Your task to perform on an android device: Open Wikipedia Image 0: 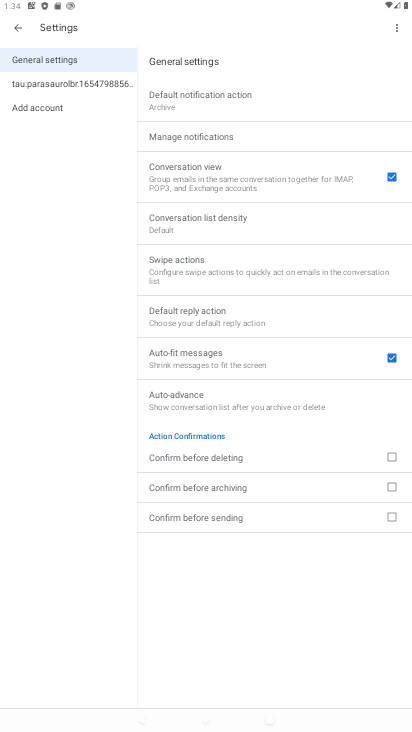
Step 0: press home button
Your task to perform on an android device: Open Wikipedia Image 1: 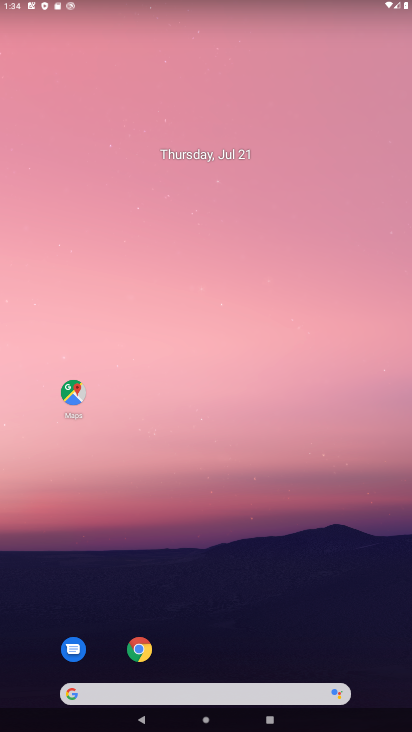
Step 1: drag from (227, 708) to (227, 157)
Your task to perform on an android device: Open Wikipedia Image 2: 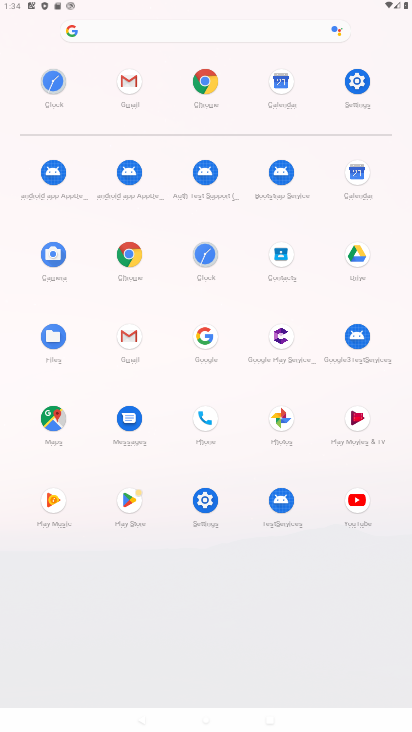
Step 2: click (215, 78)
Your task to perform on an android device: Open Wikipedia Image 3: 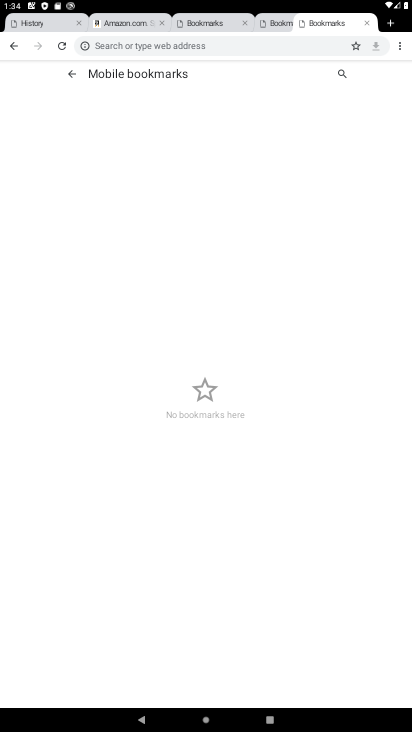
Step 3: click (400, 43)
Your task to perform on an android device: Open Wikipedia Image 4: 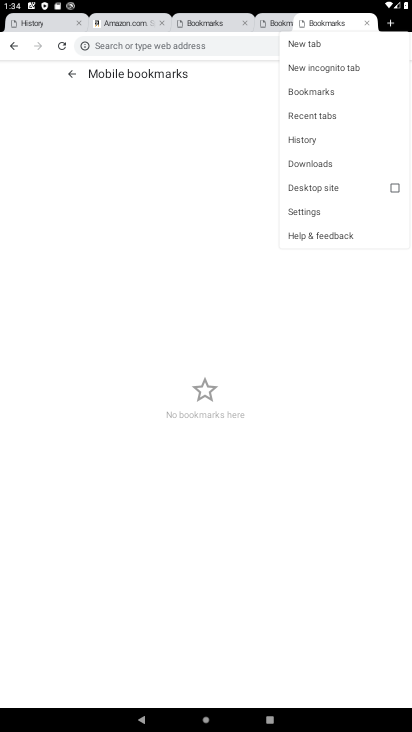
Step 4: click (309, 40)
Your task to perform on an android device: Open Wikipedia Image 5: 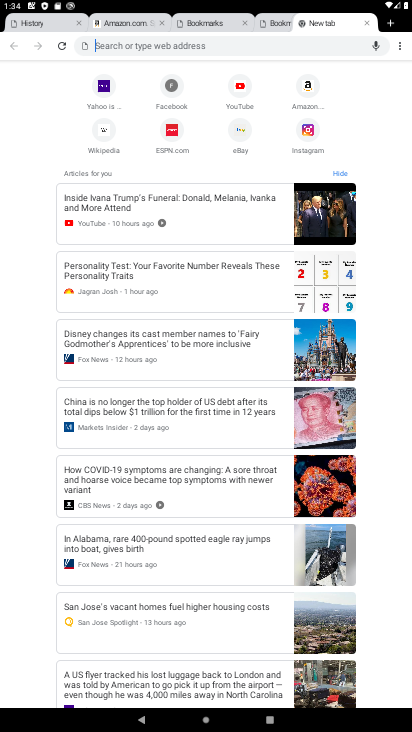
Step 5: click (101, 130)
Your task to perform on an android device: Open Wikipedia Image 6: 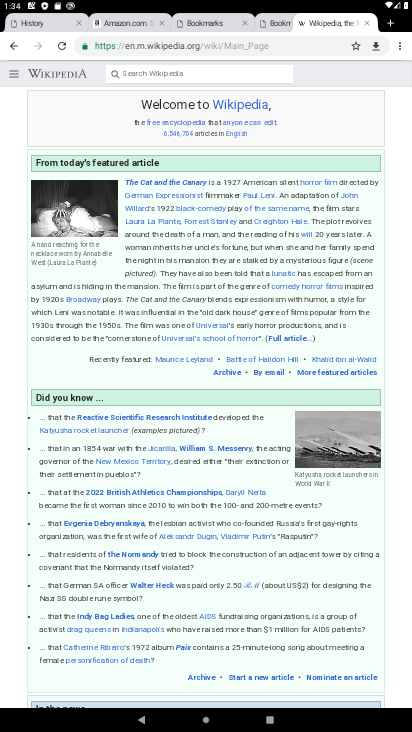
Step 6: task complete